Your task to perform on an android device: open sync settings in chrome Image 0: 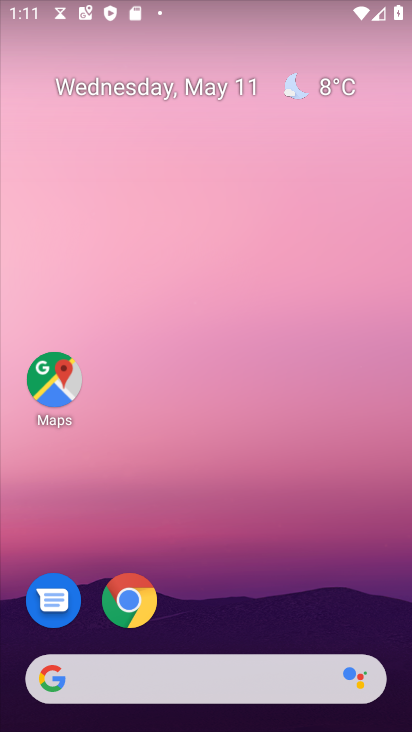
Step 0: click (136, 594)
Your task to perform on an android device: open sync settings in chrome Image 1: 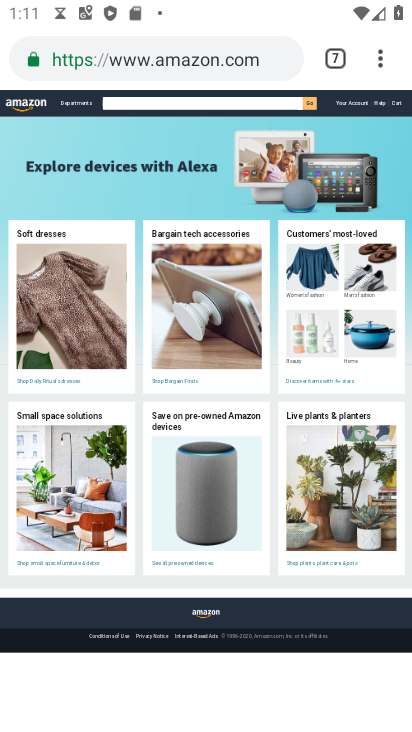
Step 1: click (385, 57)
Your task to perform on an android device: open sync settings in chrome Image 2: 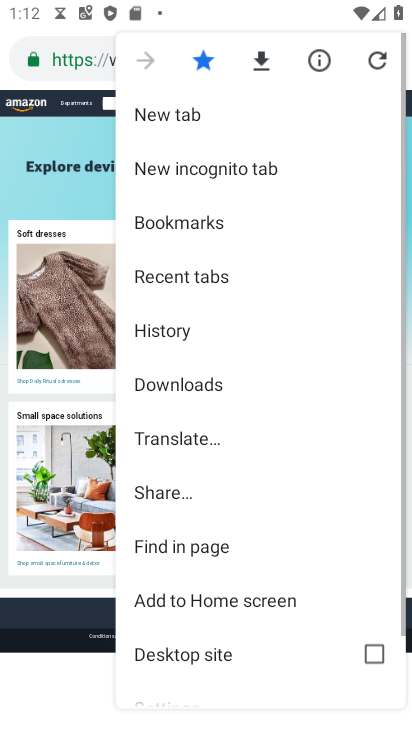
Step 2: drag from (262, 615) to (266, 230)
Your task to perform on an android device: open sync settings in chrome Image 3: 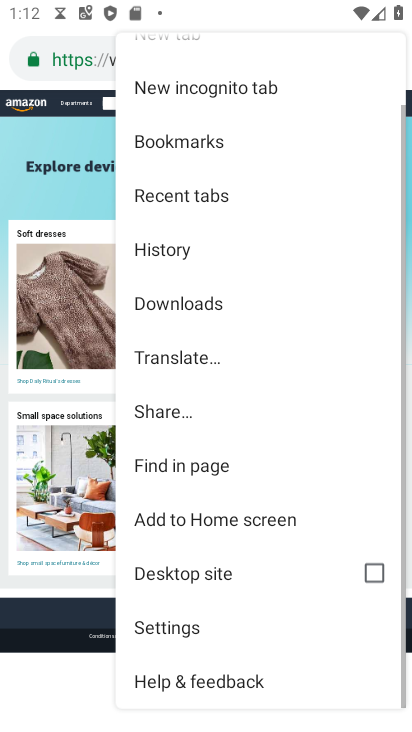
Step 3: click (206, 630)
Your task to perform on an android device: open sync settings in chrome Image 4: 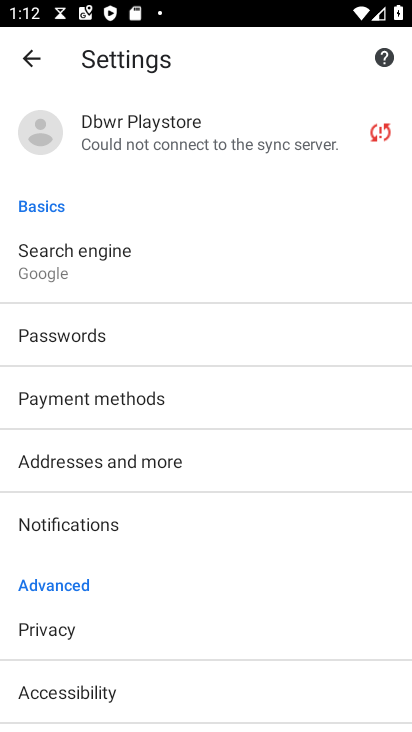
Step 4: drag from (199, 612) to (214, 400)
Your task to perform on an android device: open sync settings in chrome Image 5: 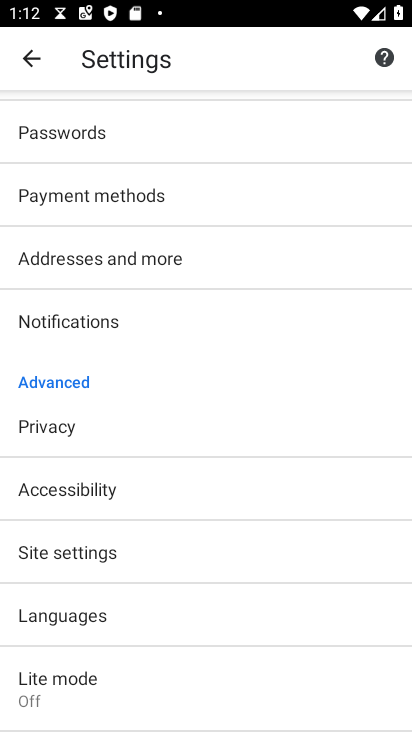
Step 5: click (92, 536)
Your task to perform on an android device: open sync settings in chrome Image 6: 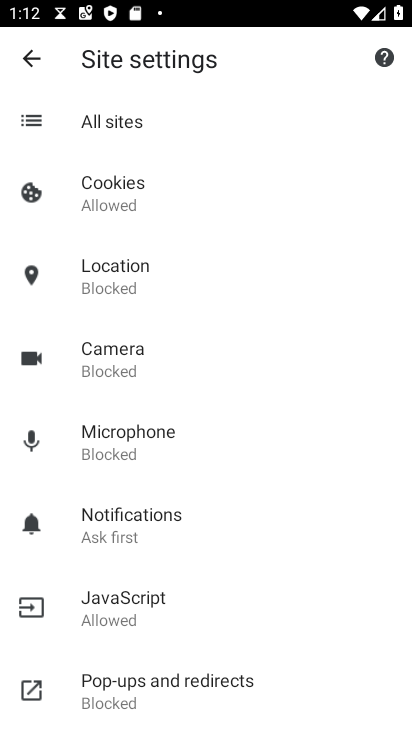
Step 6: drag from (227, 617) to (202, 328)
Your task to perform on an android device: open sync settings in chrome Image 7: 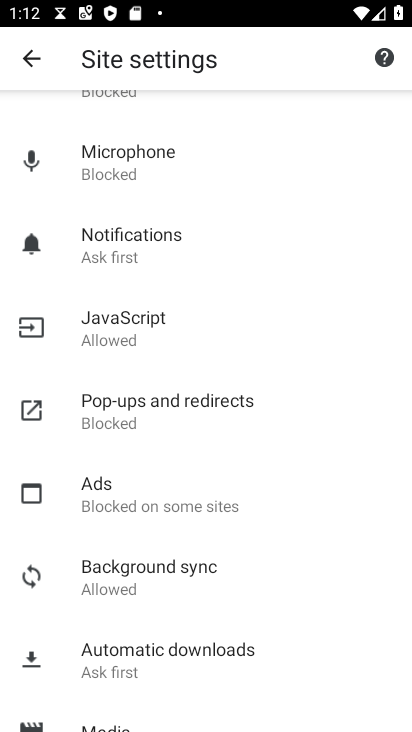
Step 7: click (157, 579)
Your task to perform on an android device: open sync settings in chrome Image 8: 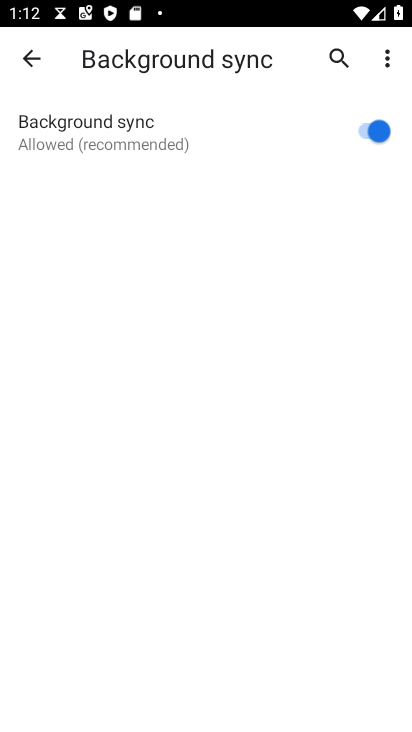
Step 8: task complete